Your task to perform on an android device: Go to internet settings Image 0: 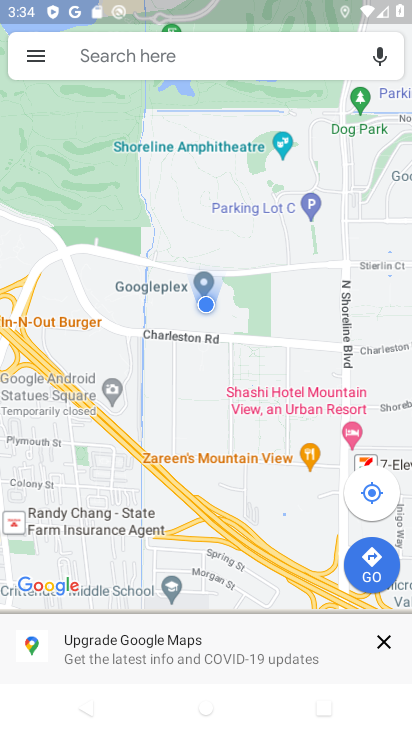
Step 0: press home button
Your task to perform on an android device: Go to internet settings Image 1: 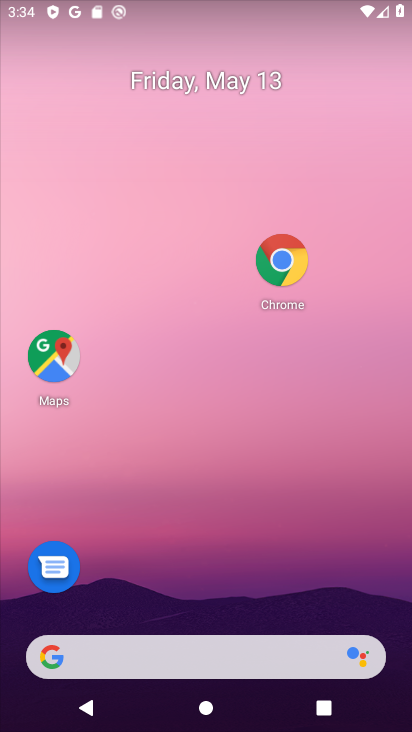
Step 1: drag from (279, 539) to (90, 45)
Your task to perform on an android device: Go to internet settings Image 2: 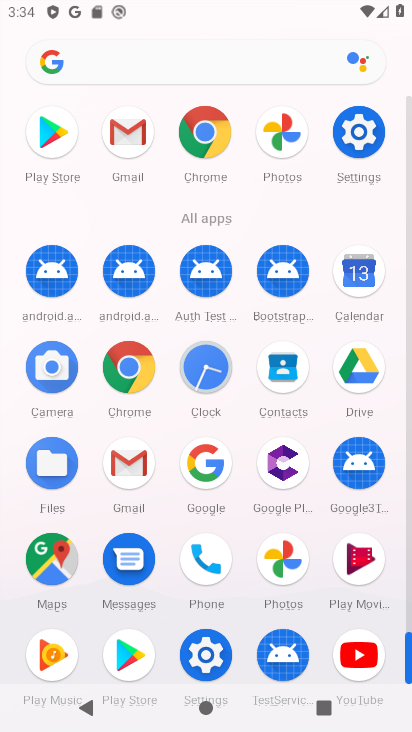
Step 2: click (339, 141)
Your task to perform on an android device: Go to internet settings Image 3: 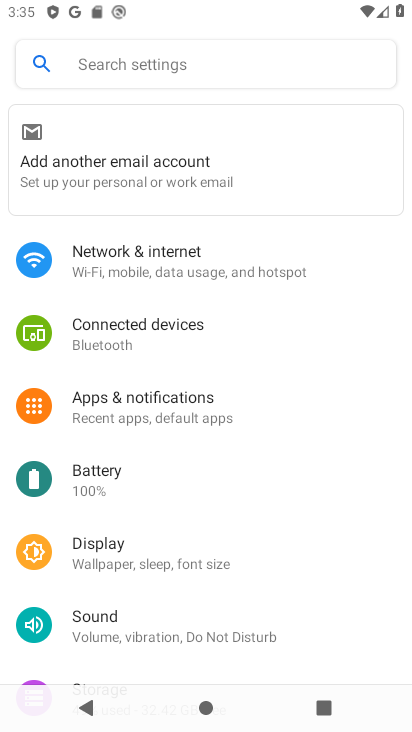
Step 3: drag from (113, 557) to (170, 128)
Your task to perform on an android device: Go to internet settings Image 4: 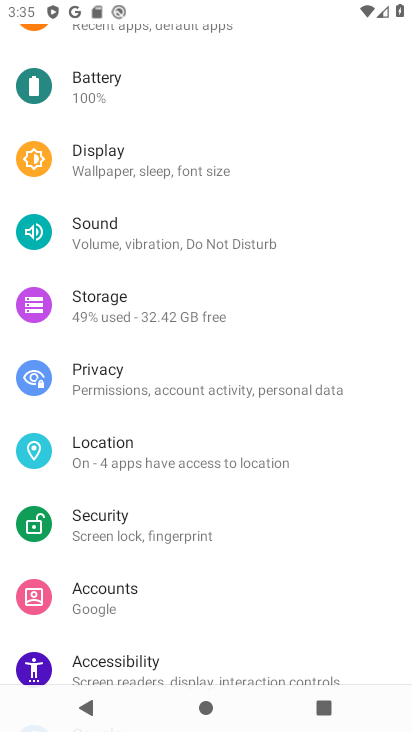
Step 4: drag from (118, 180) to (207, 533)
Your task to perform on an android device: Go to internet settings Image 5: 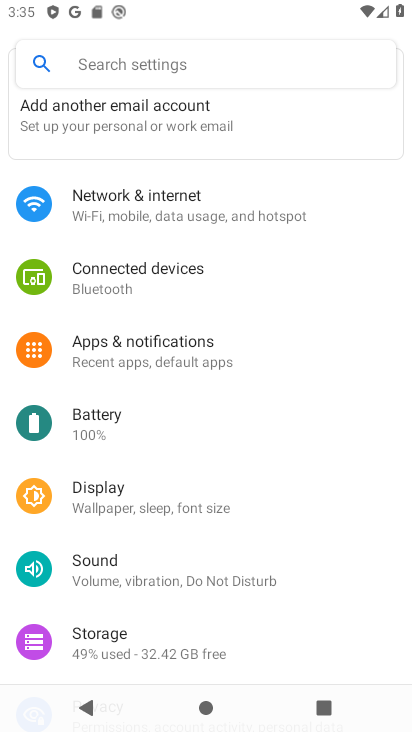
Step 5: click (168, 205)
Your task to perform on an android device: Go to internet settings Image 6: 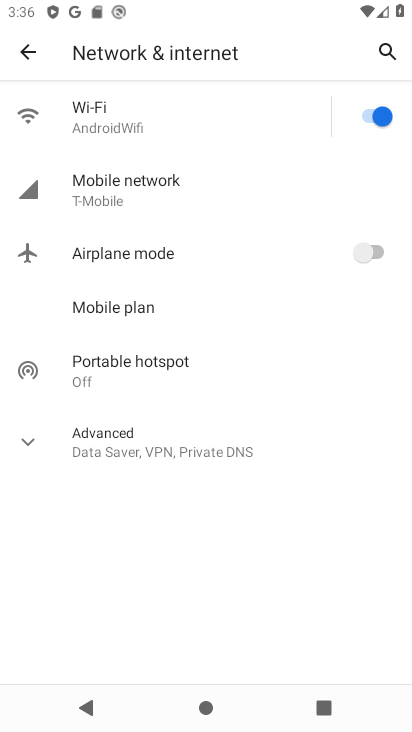
Step 6: press home button
Your task to perform on an android device: Go to internet settings Image 7: 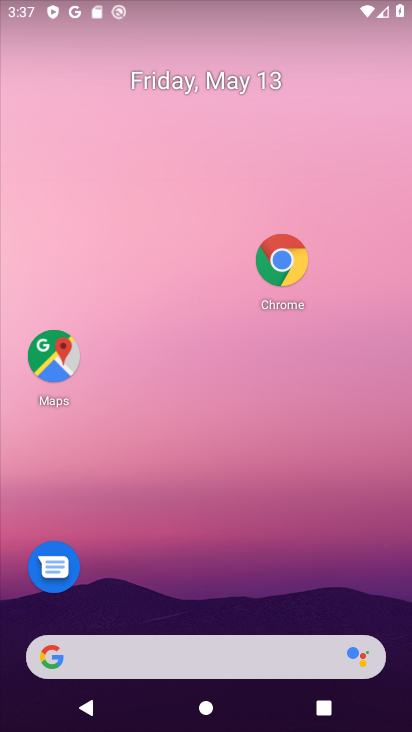
Step 7: click (153, 119)
Your task to perform on an android device: Go to internet settings Image 8: 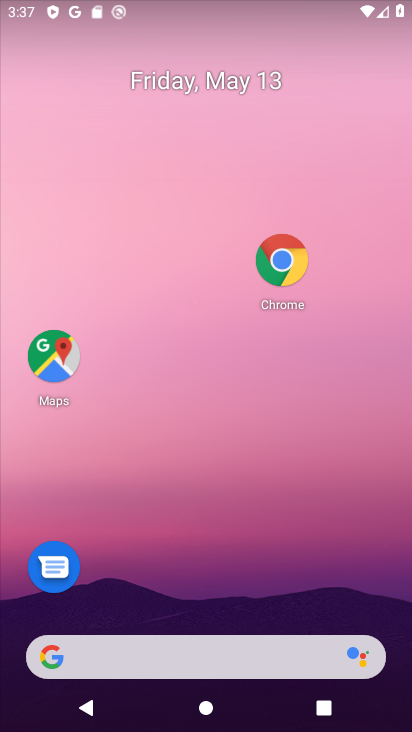
Step 8: drag from (244, 531) to (122, 62)
Your task to perform on an android device: Go to internet settings Image 9: 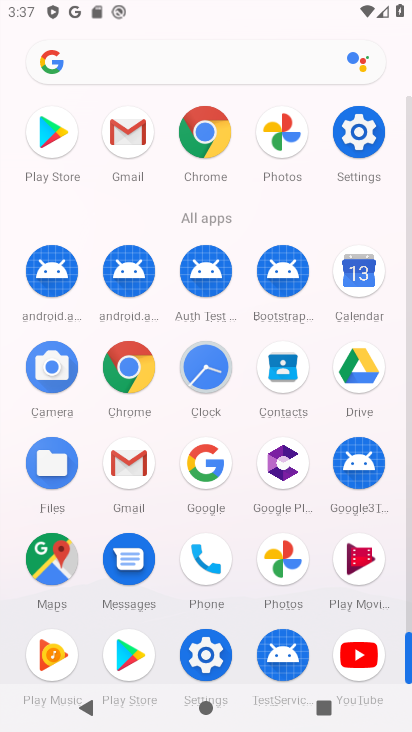
Step 9: click (335, 124)
Your task to perform on an android device: Go to internet settings Image 10: 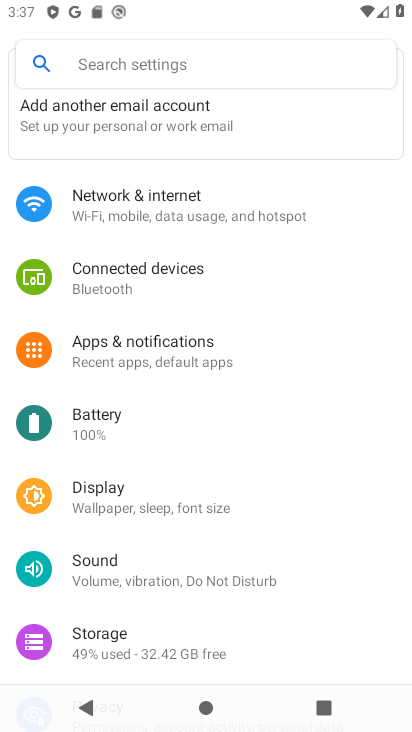
Step 10: click (115, 197)
Your task to perform on an android device: Go to internet settings Image 11: 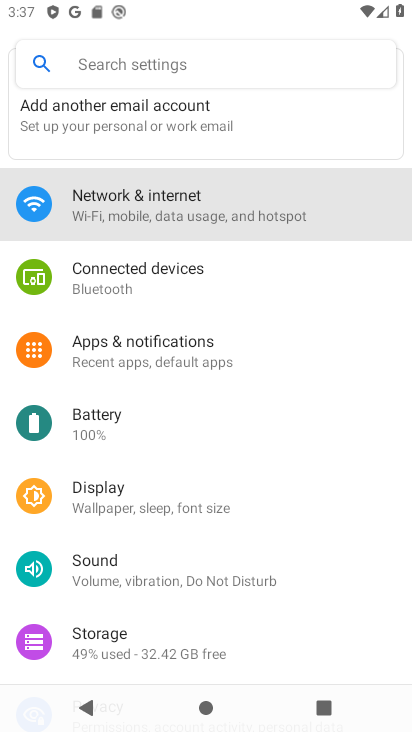
Step 11: click (115, 197)
Your task to perform on an android device: Go to internet settings Image 12: 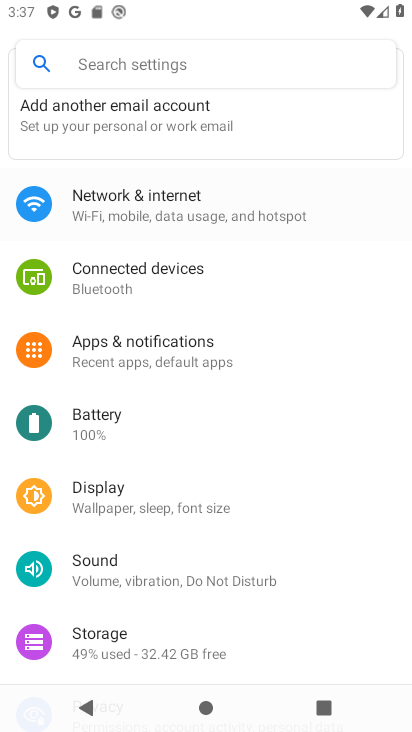
Step 12: click (115, 197)
Your task to perform on an android device: Go to internet settings Image 13: 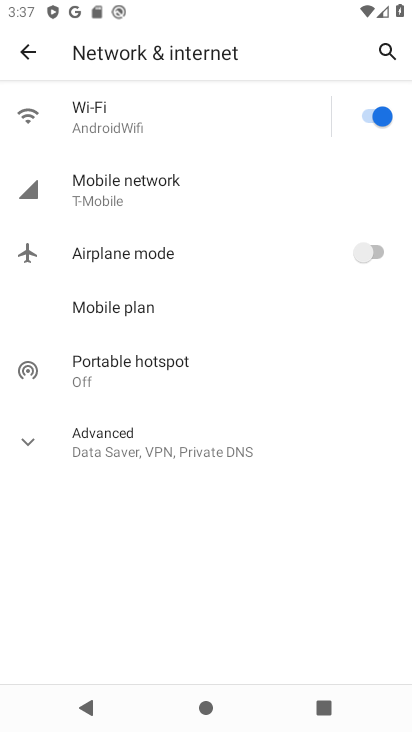
Step 13: task complete